Your task to perform on an android device: check battery use Image 0: 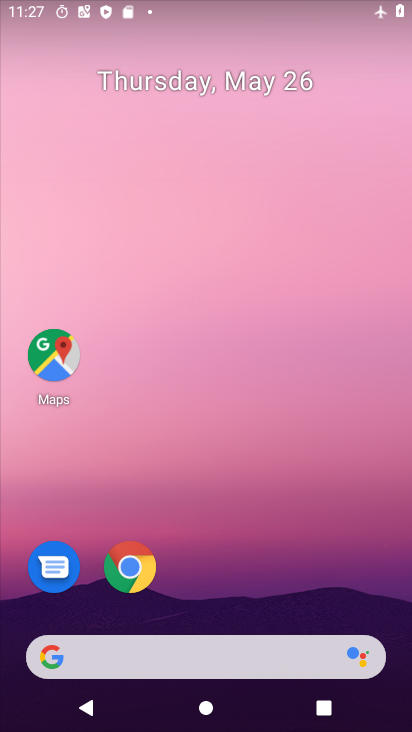
Step 0: drag from (270, 687) to (209, 255)
Your task to perform on an android device: check battery use Image 1: 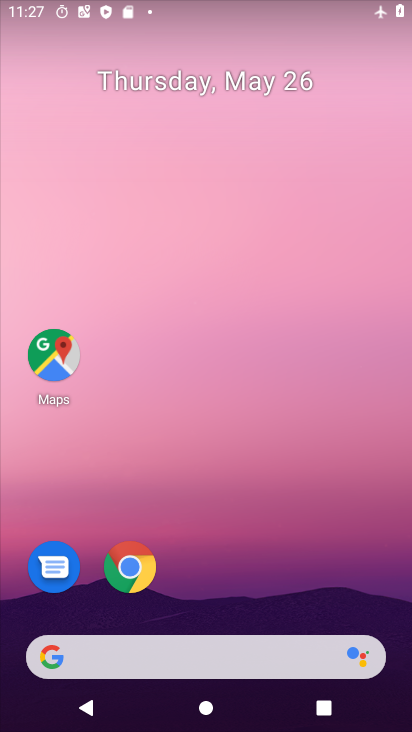
Step 1: drag from (282, 702) to (164, 10)
Your task to perform on an android device: check battery use Image 2: 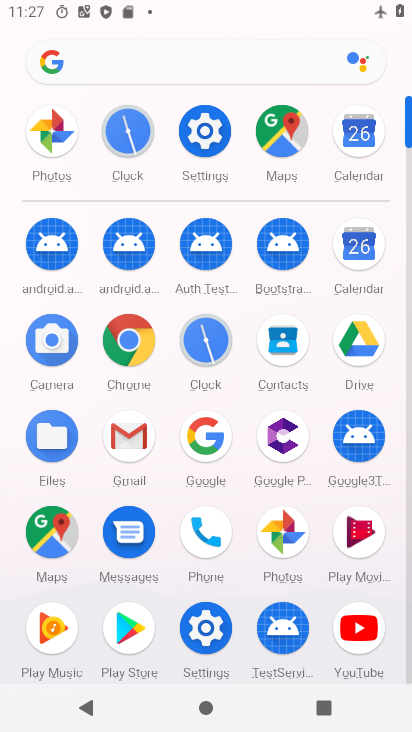
Step 2: click (198, 138)
Your task to perform on an android device: check battery use Image 3: 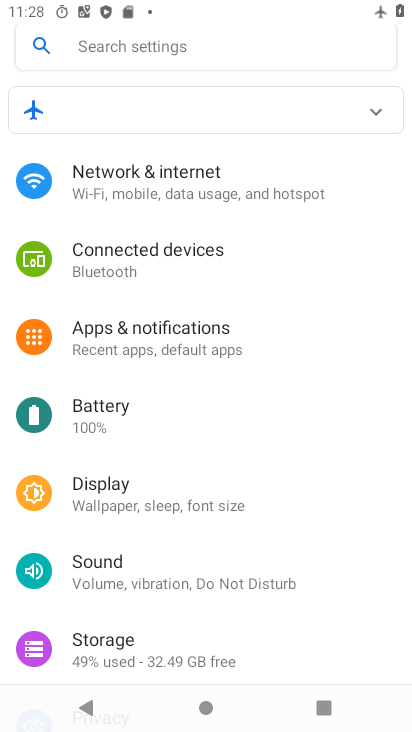
Step 3: click (125, 426)
Your task to perform on an android device: check battery use Image 4: 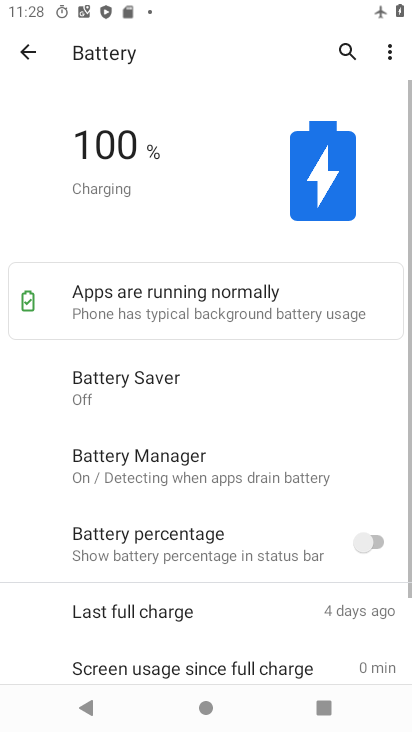
Step 4: click (390, 56)
Your task to perform on an android device: check battery use Image 5: 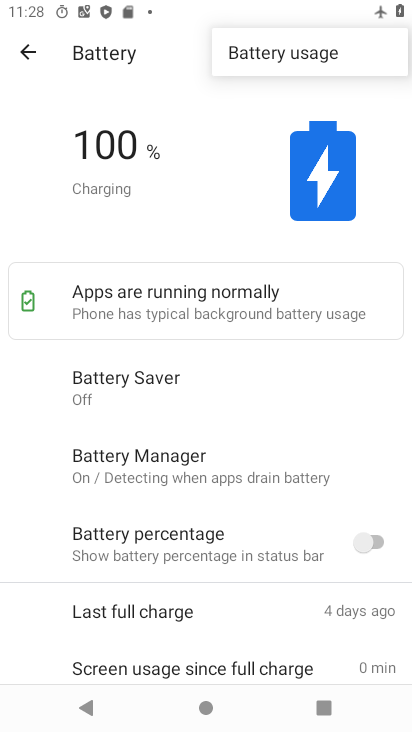
Step 5: click (319, 52)
Your task to perform on an android device: check battery use Image 6: 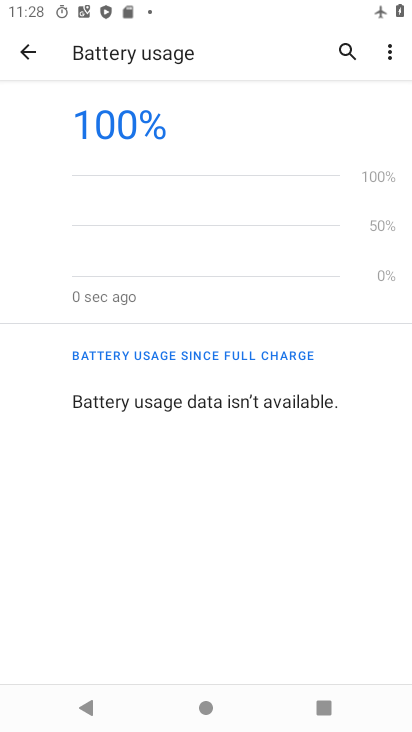
Step 6: task complete